Your task to perform on an android device: Open accessibility settings Image 0: 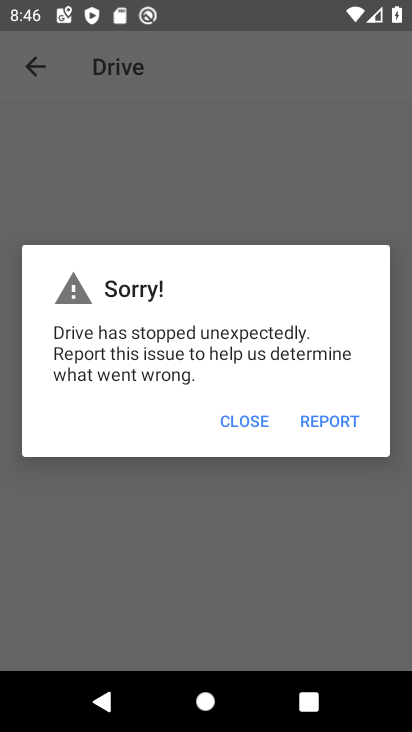
Step 0: press home button
Your task to perform on an android device: Open accessibility settings Image 1: 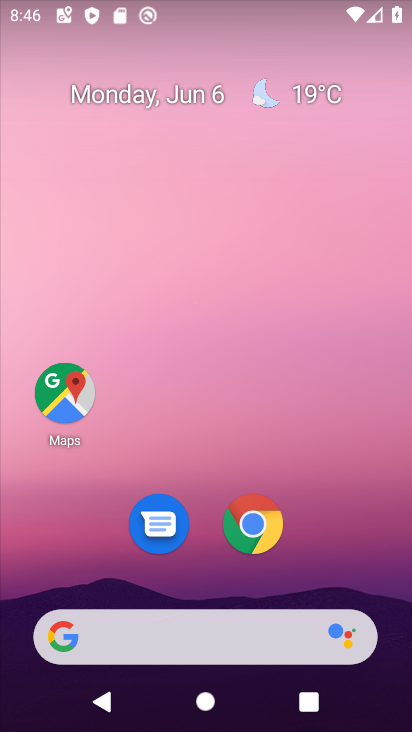
Step 1: drag from (222, 465) to (236, 1)
Your task to perform on an android device: Open accessibility settings Image 2: 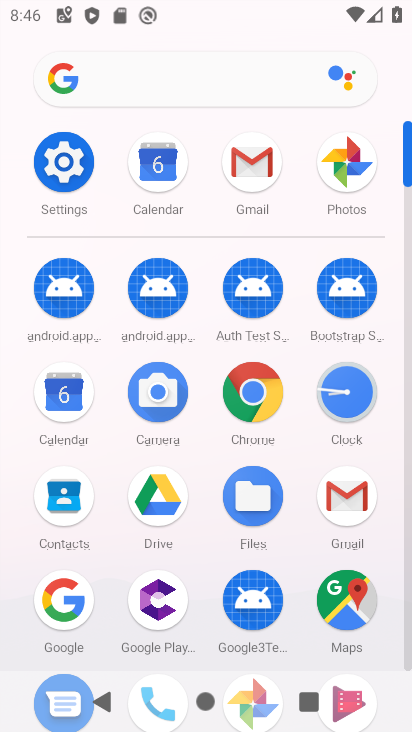
Step 2: click (60, 167)
Your task to perform on an android device: Open accessibility settings Image 3: 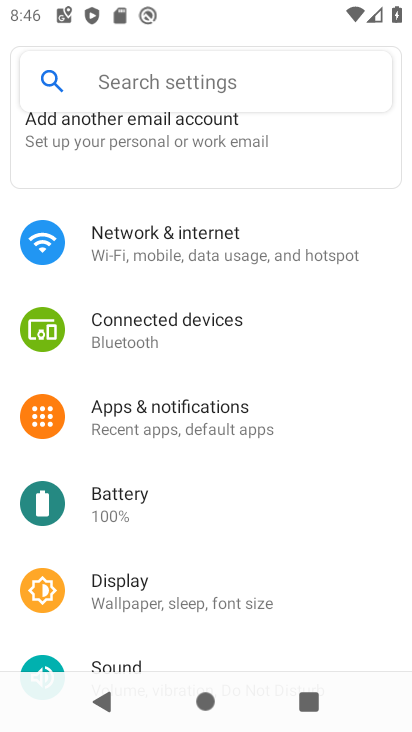
Step 3: drag from (204, 480) to (227, 10)
Your task to perform on an android device: Open accessibility settings Image 4: 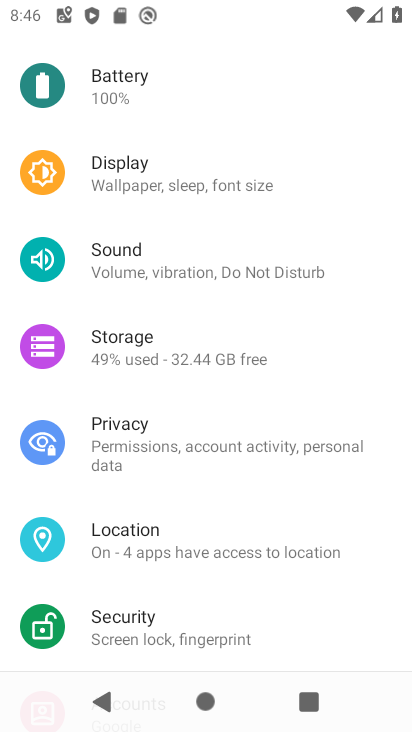
Step 4: drag from (202, 488) to (217, 104)
Your task to perform on an android device: Open accessibility settings Image 5: 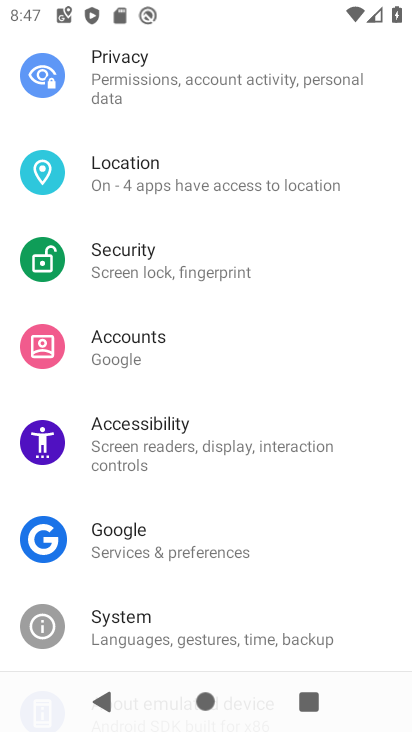
Step 5: click (180, 445)
Your task to perform on an android device: Open accessibility settings Image 6: 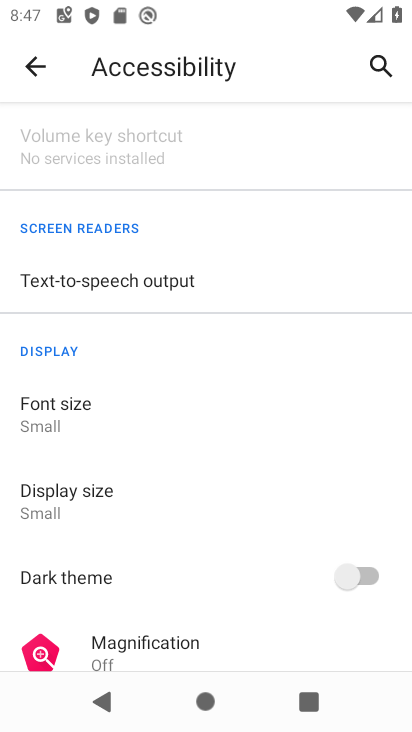
Step 6: task complete